Your task to perform on an android device: empty trash in the gmail app Image 0: 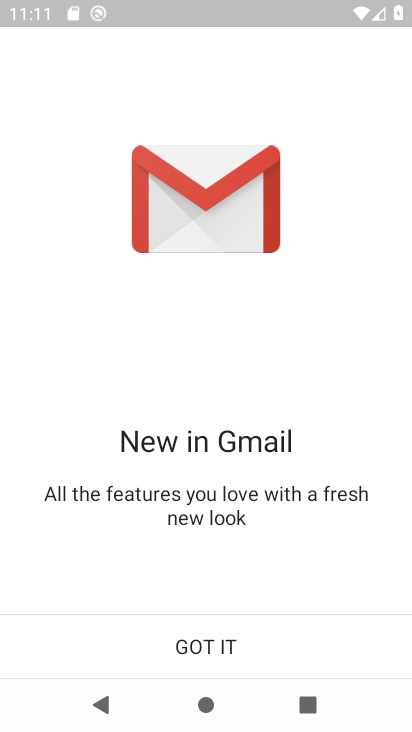
Step 0: click (260, 639)
Your task to perform on an android device: empty trash in the gmail app Image 1: 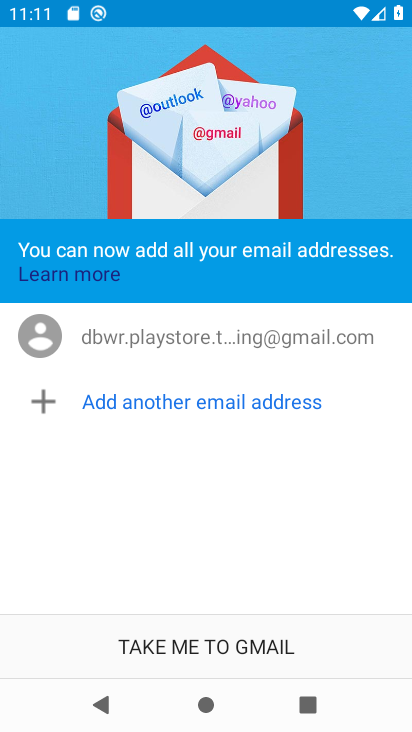
Step 1: click (260, 639)
Your task to perform on an android device: empty trash in the gmail app Image 2: 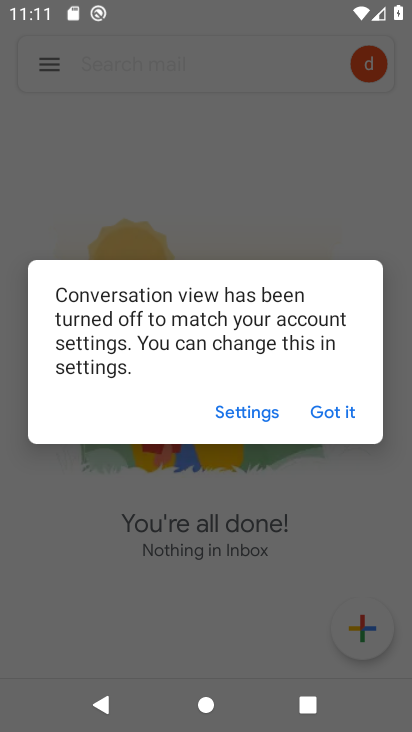
Step 2: click (340, 403)
Your task to perform on an android device: empty trash in the gmail app Image 3: 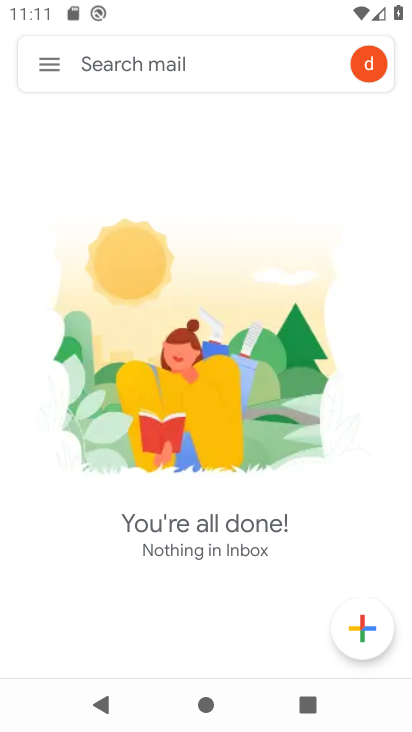
Step 3: click (55, 59)
Your task to perform on an android device: empty trash in the gmail app Image 4: 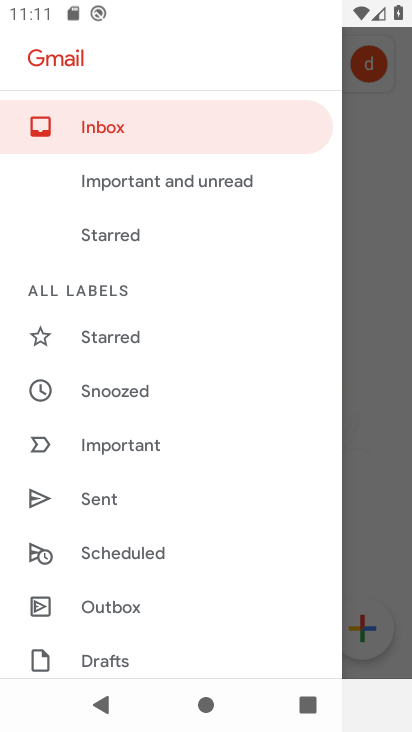
Step 4: drag from (180, 686) to (278, 396)
Your task to perform on an android device: empty trash in the gmail app Image 5: 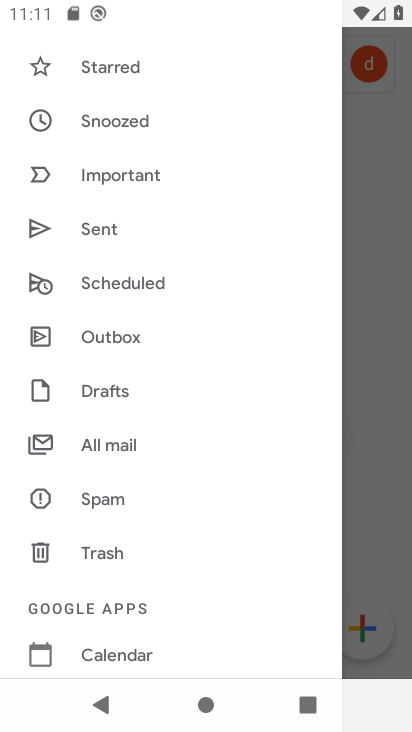
Step 5: click (152, 562)
Your task to perform on an android device: empty trash in the gmail app Image 6: 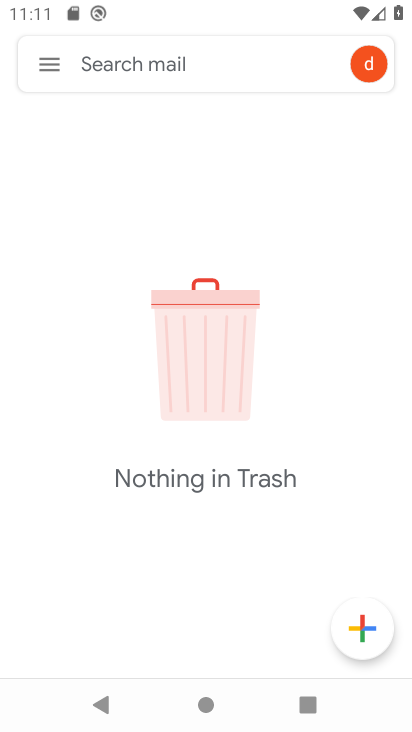
Step 6: task complete